Your task to perform on an android device: Open calendar and show me the fourth week of next month Image 0: 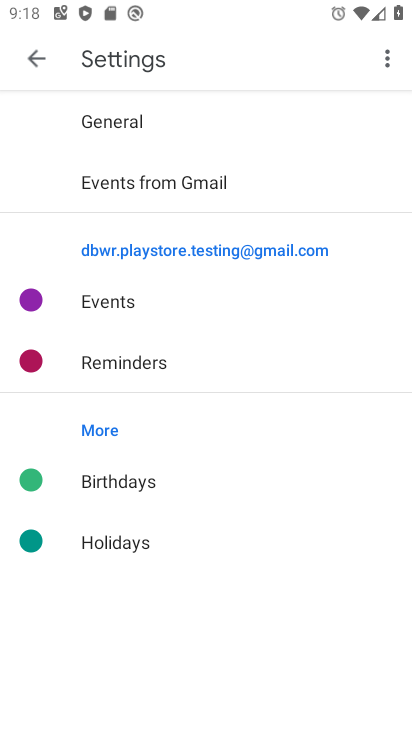
Step 0: click (176, 669)
Your task to perform on an android device: Open calendar and show me the fourth week of next month Image 1: 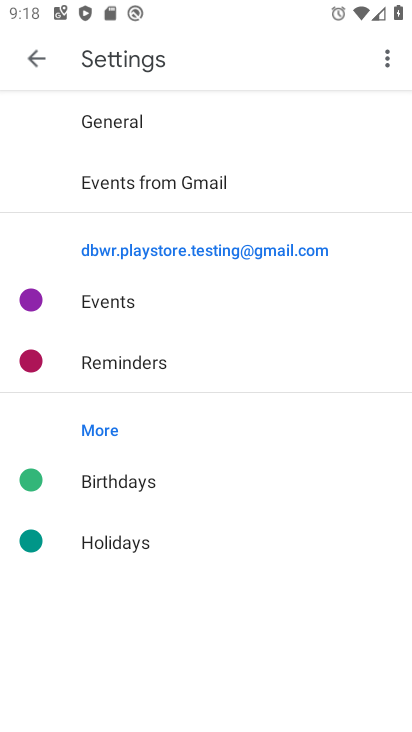
Step 1: press home button
Your task to perform on an android device: Open calendar and show me the fourth week of next month Image 2: 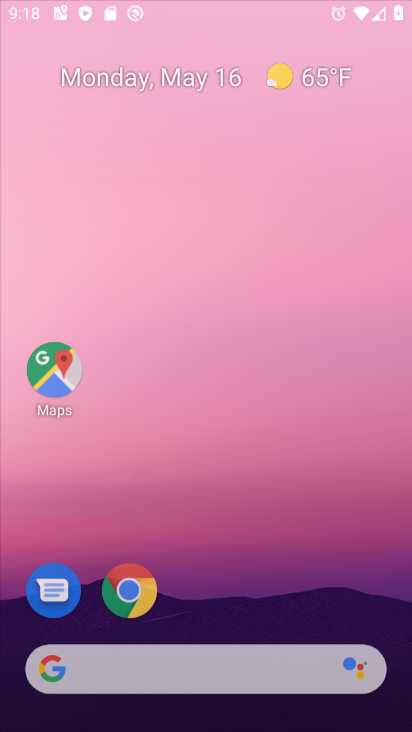
Step 2: drag from (282, 607) to (302, 117)
Your task to perform on an android device: Open calendar and show me the fourth week of next month Image 3: 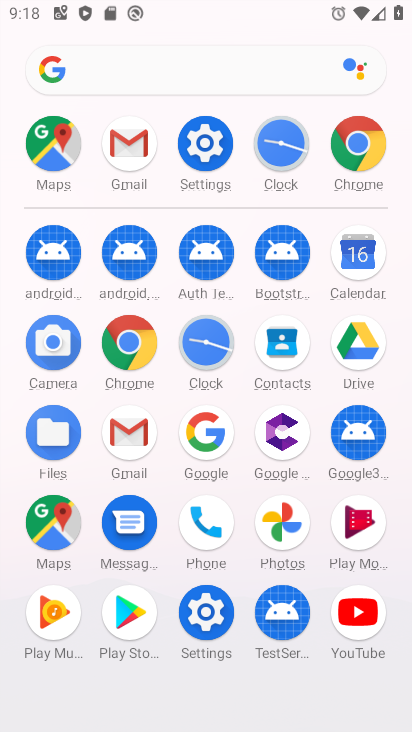
Step 3: click (364, 267)
Your task to perform on an android device: Open calendar and show me the fourth week of next month Image 4: 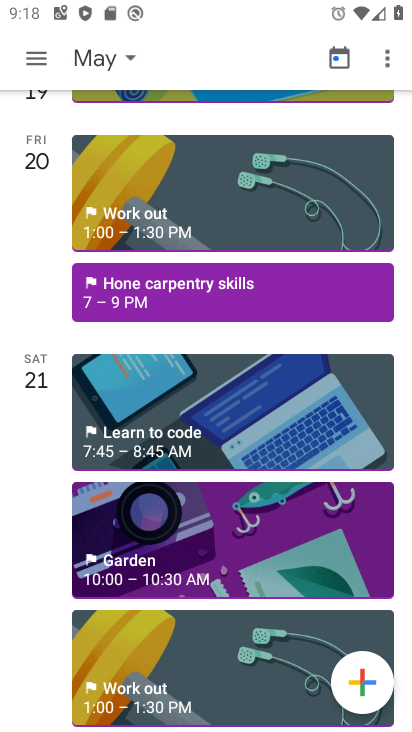
Step 4: drag from (281, 570) to (395, 33)
Your task to perform on an android device: Open calendar and show me the fourth week of next month Image 5: 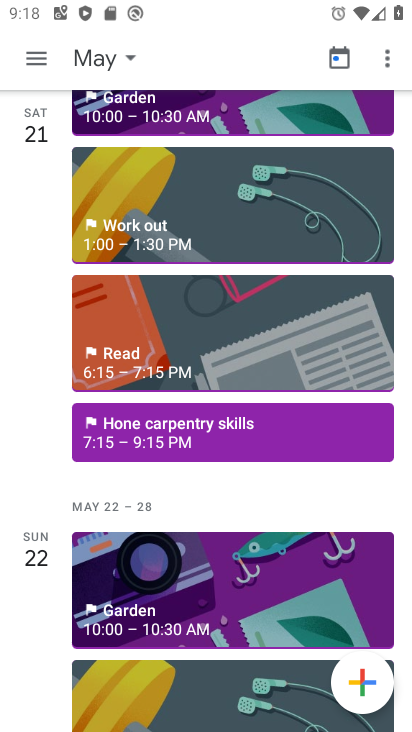
Step 5: click (120, 60)
Your task to perform on an android device: Open calendar and show me the fourth week of next month Image 6: 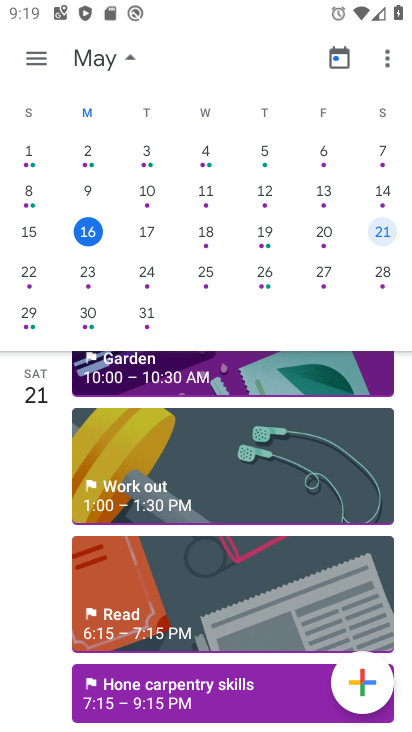
Step 6: click (325, 233)
Your task to perform on an android device: Open calendar and show me the fourth week of next month Image 7: 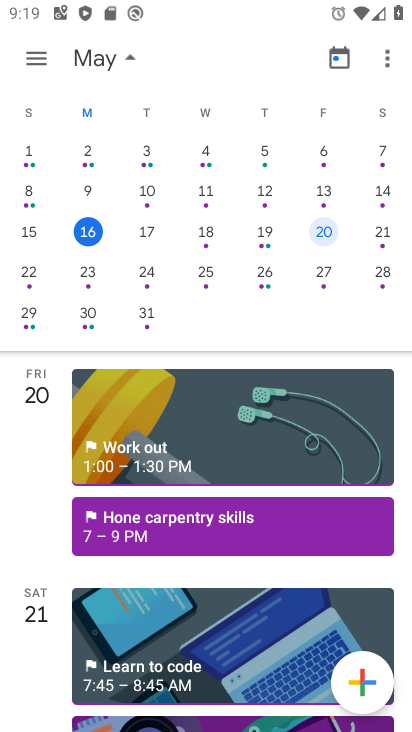
Step 7: task complete